Your task to perform on an android device: What is the recent news? Image 0: 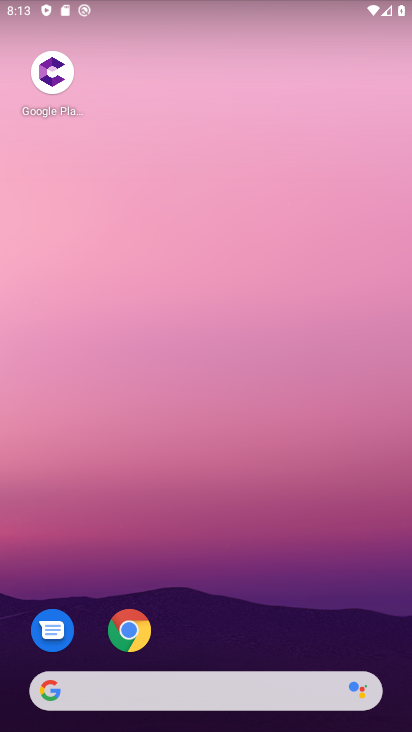
Step 0: drag from (218, 639) to (226, 273)
Your task to perform on an android device: What is the recent news? Image 1: 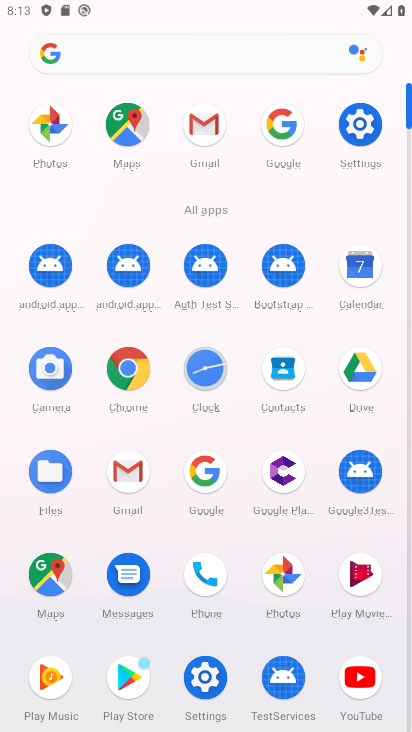
Step 1: click (274, 146)
Your task to perform on an android device: What is the recent news? Image 2: 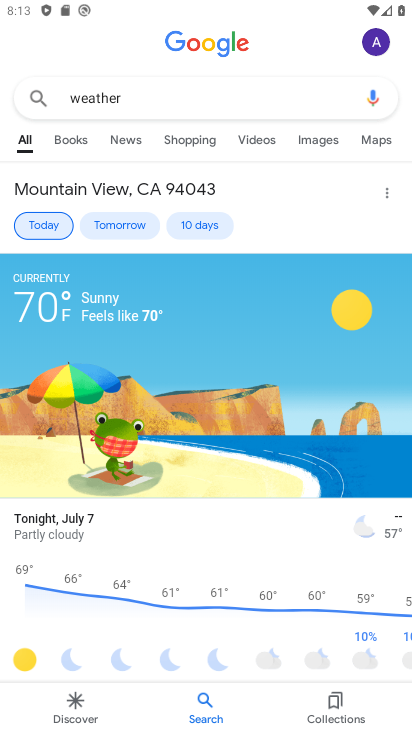
Step 2: click (191, 99)
Your task to perform on an android device: What is the recent news? Image 3: 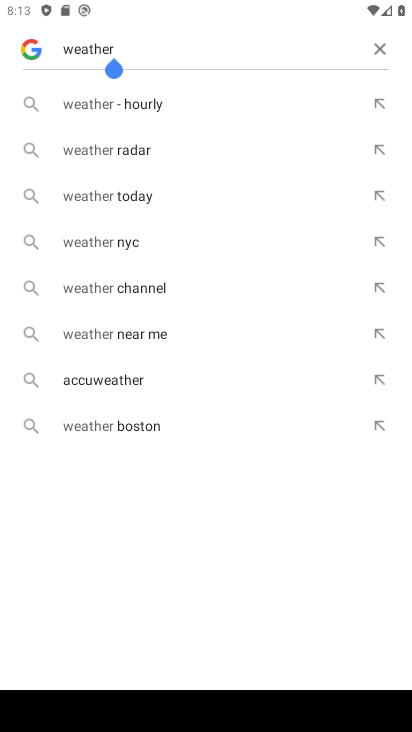
Step 3: click (376, 49)
Your task to perform on an android device: What is the recent news? Image 4: 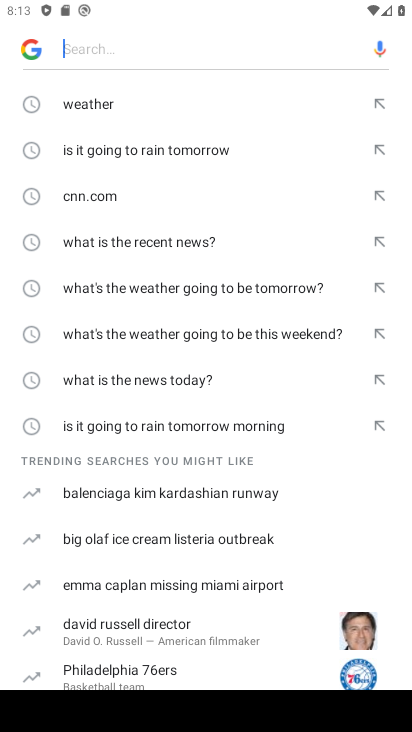
Step 4: type "news"
Your task to perform on an android device: What is the recent news? Image 5: 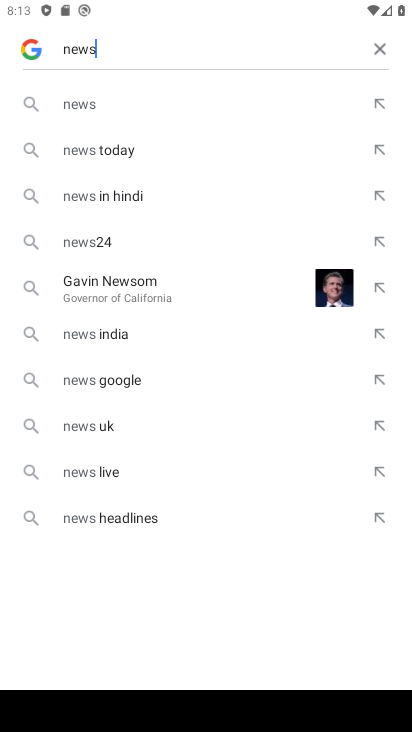
Step 5: click (104, 108)
Your task to perform on an android device: What is the recent news? Image 6: 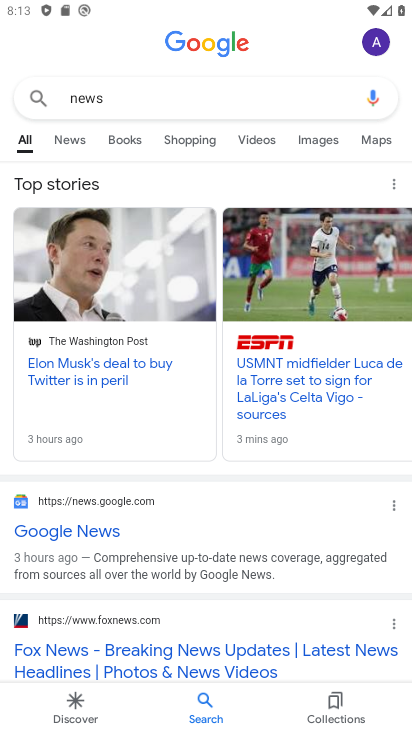
Step 6: click (72, 147)
Your task to perform on an android device: What is the recent news? Image 7: 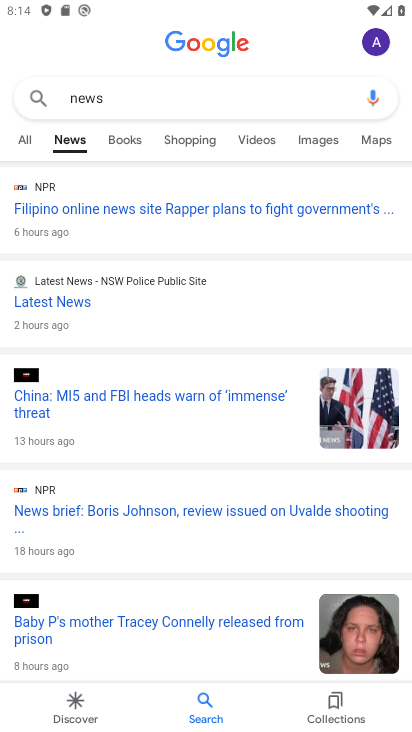
Step 7: task complete